Your task to perform on an android device: Go to eBay Image 0: 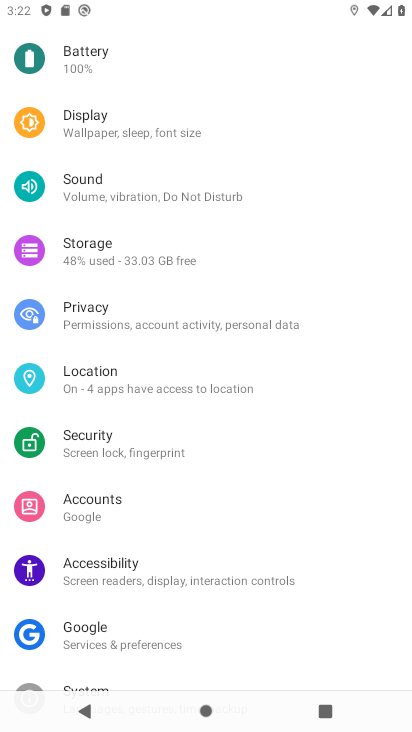
Step 0: press home button
Your task to perform on an android device: Go to eBay Image 1: 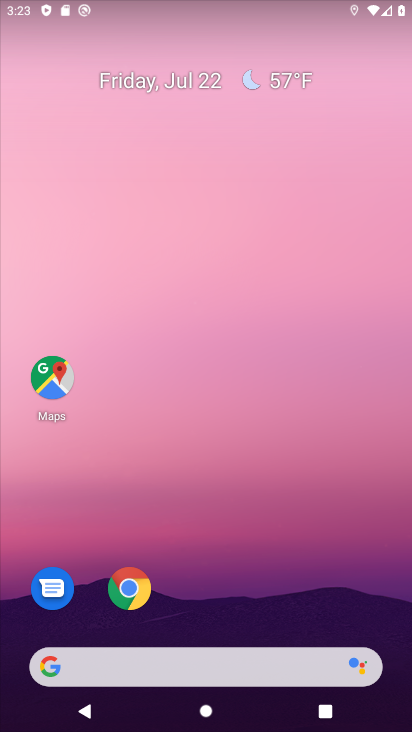
Step 1: click (128, 590)
Your task to perform on an android device: Go to eBay Image 2: 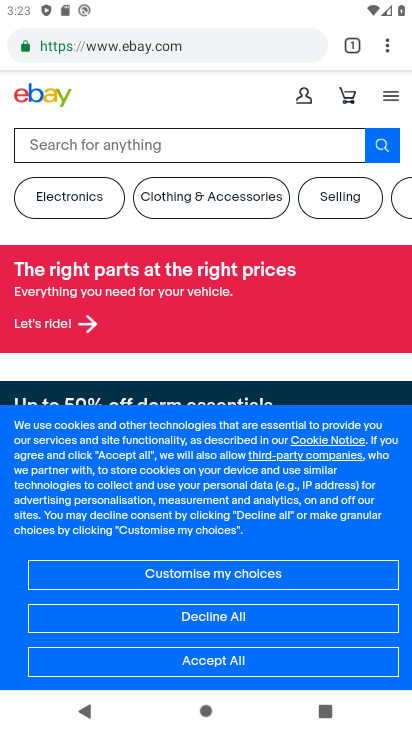
Step 2: click (349, 41)
Your task to perform on an android device: Go to eBay Image 3: 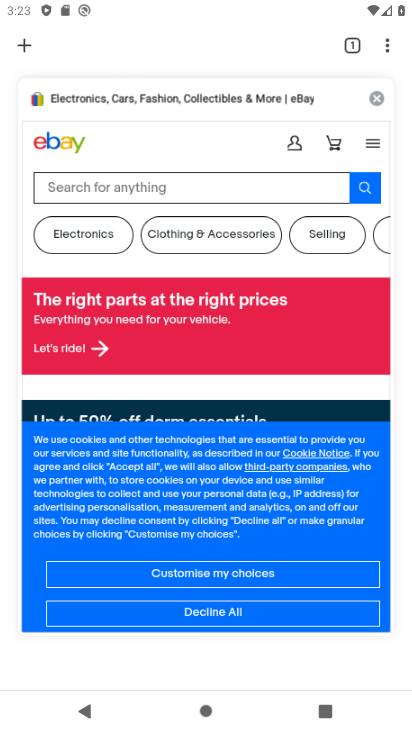
Step 3: click (89, 115)
Your task to perform on an android device: Go to eBay Image 4: 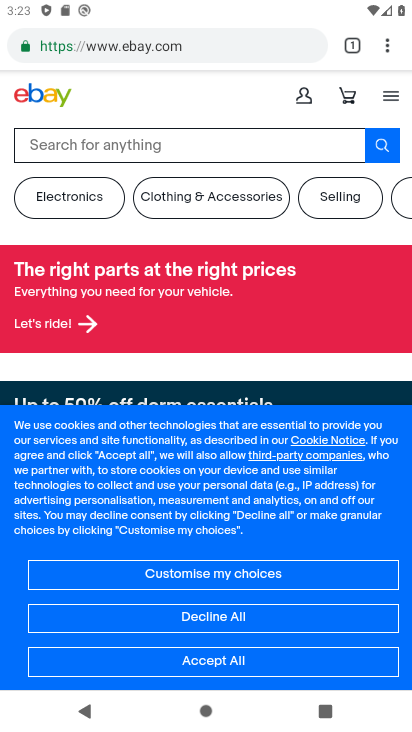
Step 4: task complete